Your task to perform on an android device: Open wifi settings Image 0: 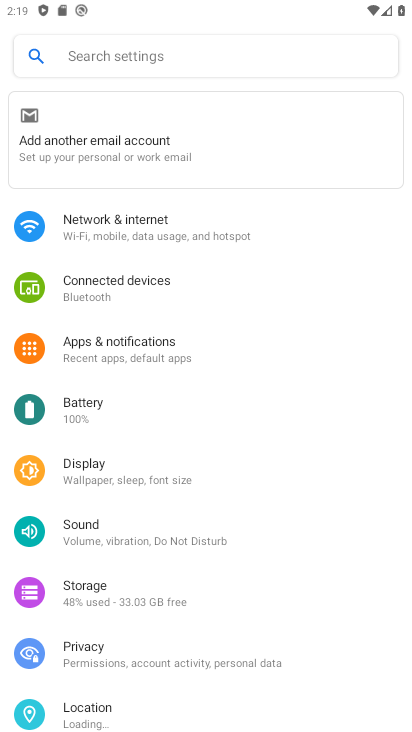
Step 0: drag from (127, 4) to (123, 387)
Your task to perform on an android device: Open wifi settings Image 1: 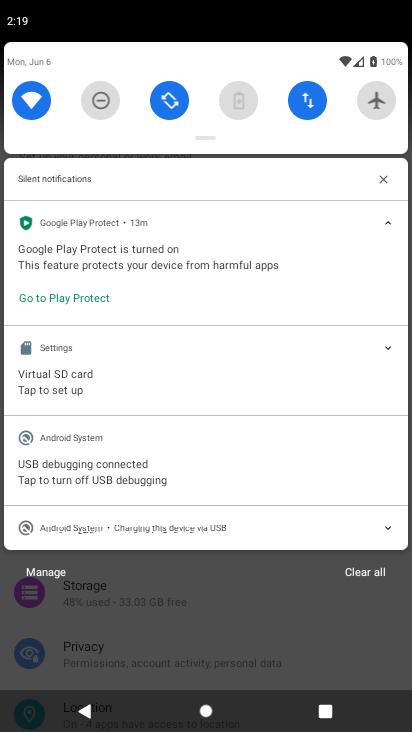
Step 1: click (34, 88)
Your task to perform on an android device: Open wifi settings Image 2: 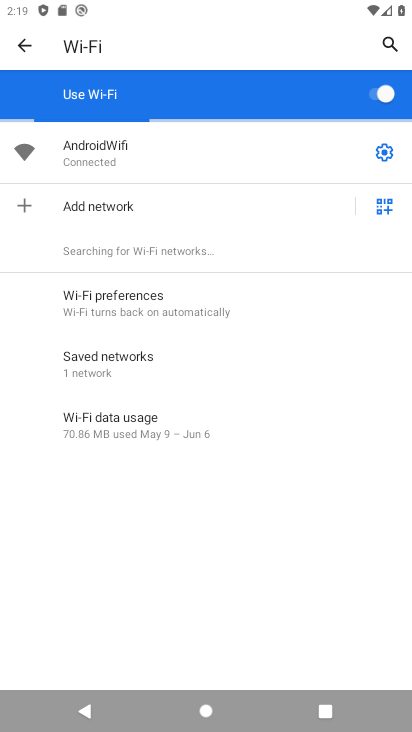
Step 2: task complete